Your task to perform on an android device: Go to Android settings Image 0: 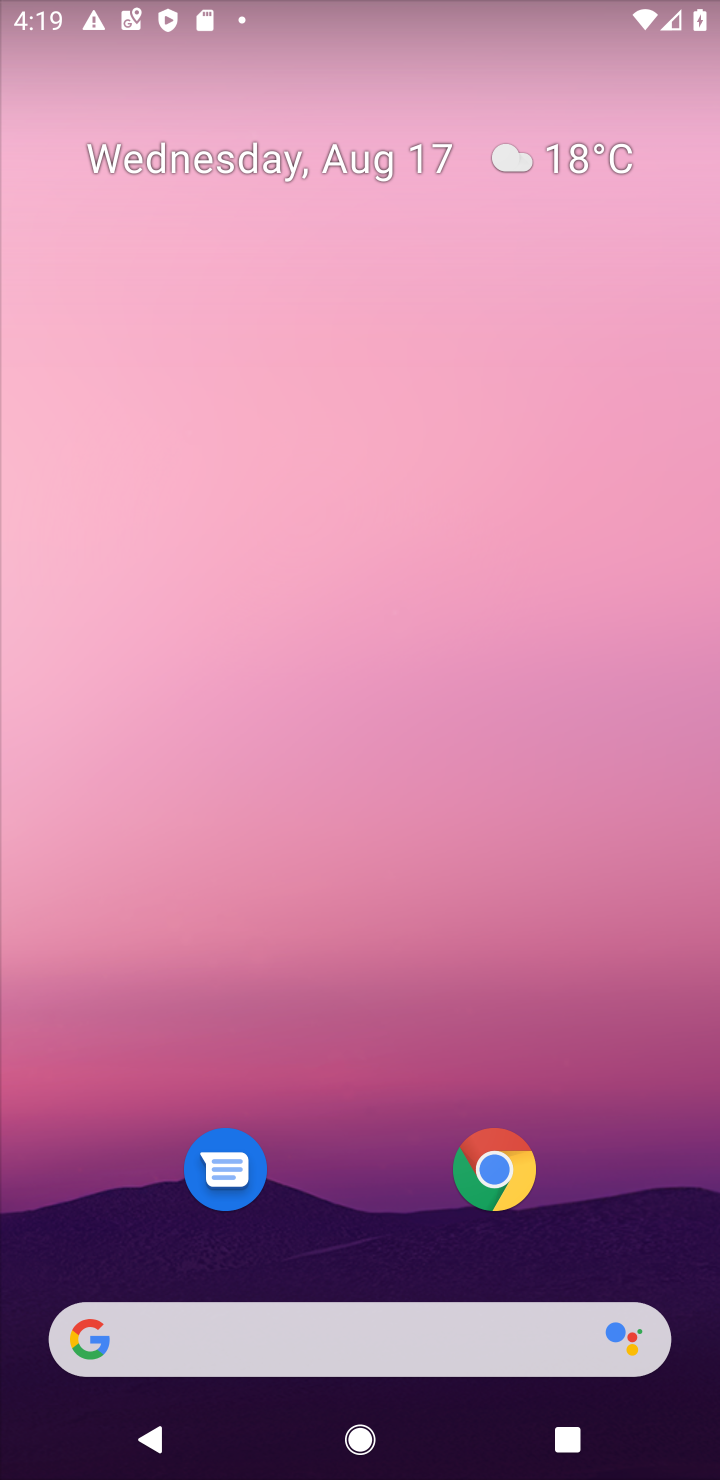
Step 0: press home button
Your task to perform on an android device: Go to Android settings Image 1: 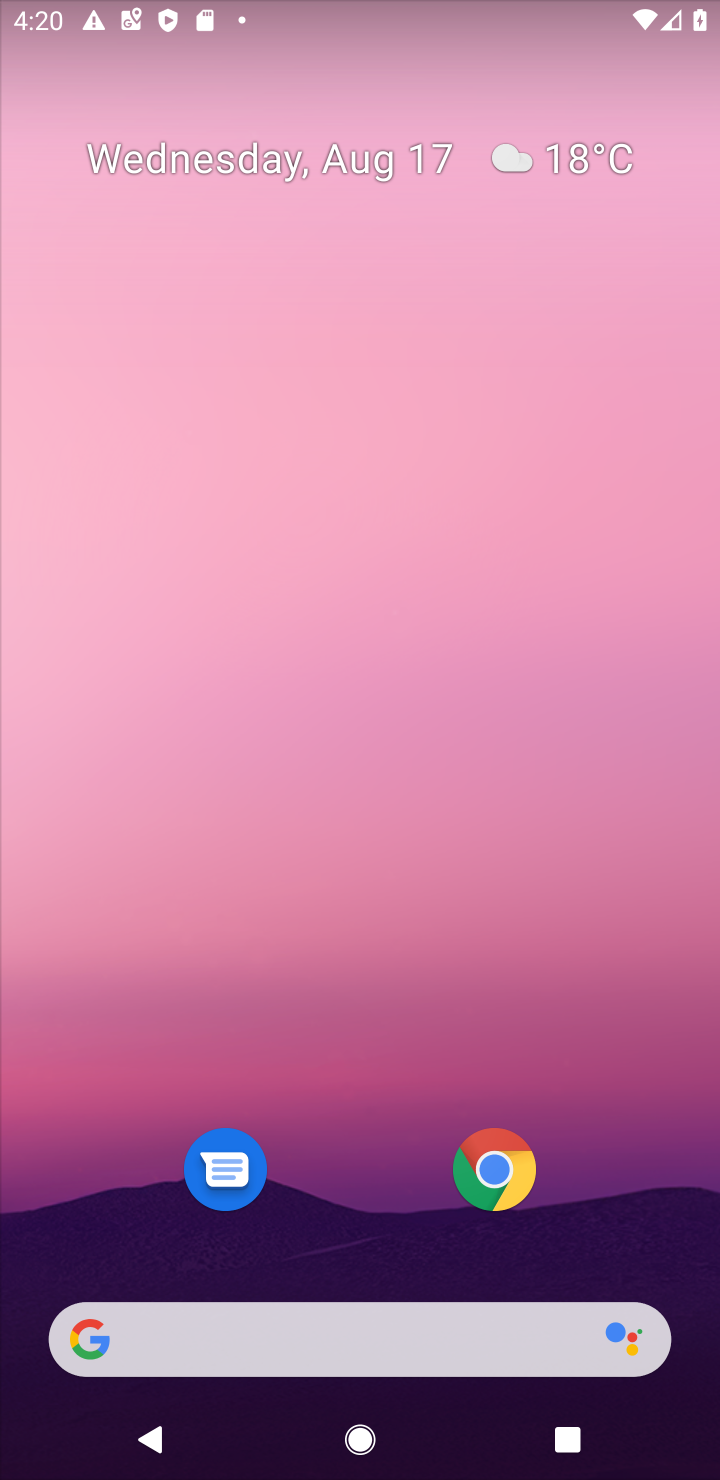
Step 1: drag from (359, 966) to (366, 13)
Your task to perform on an android device: Go to Android settings Image 2: 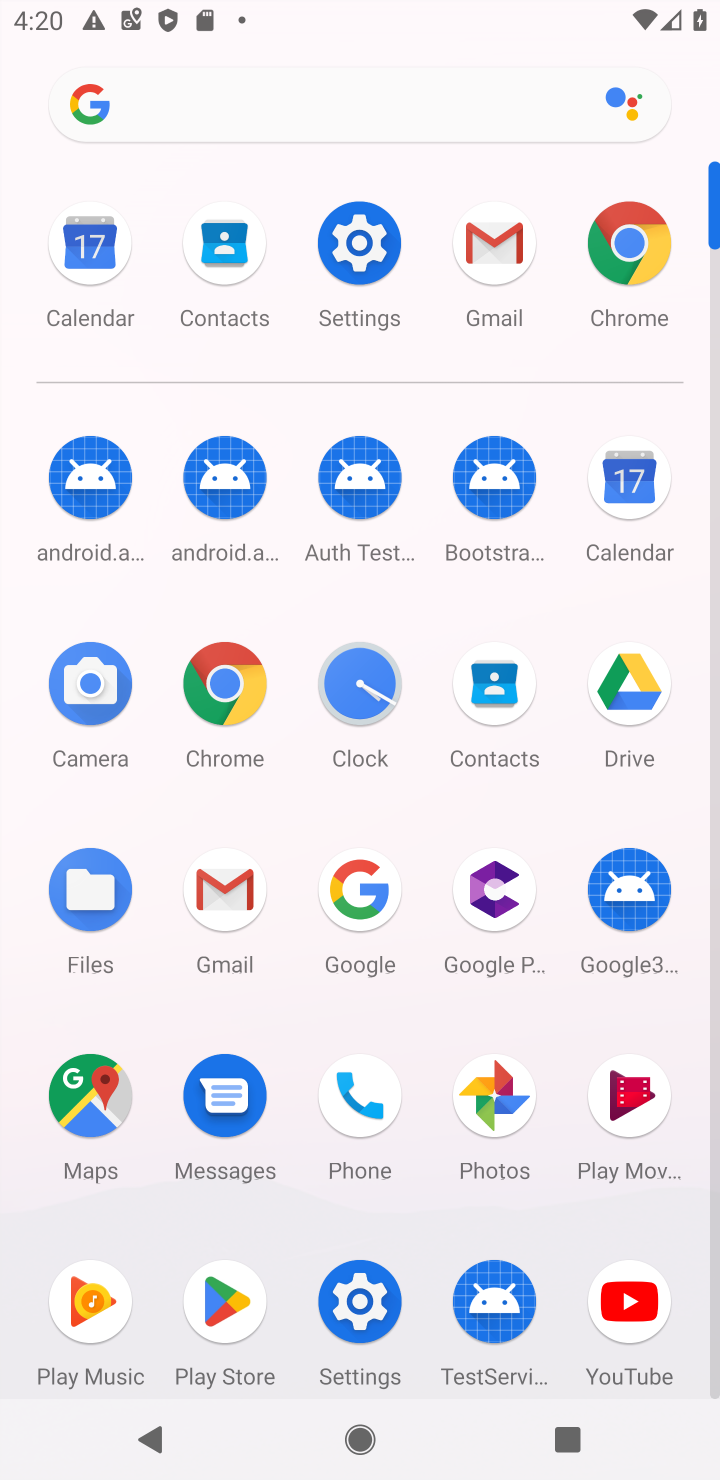
Step 2: click (368, 1290)
Your task to perform on an android device: Go to Android settings Image 3: 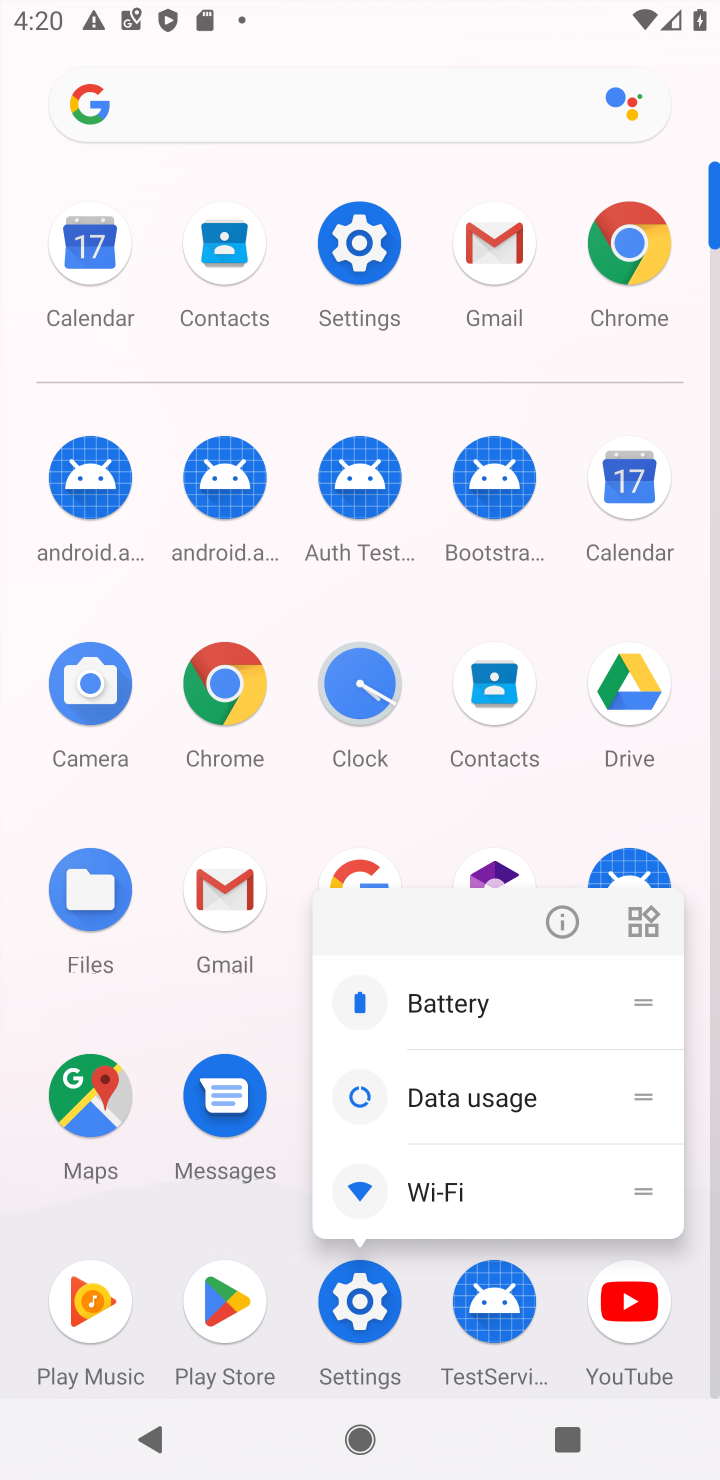
Step 3: click (361, 1311)
Your task to perform on an android device: Go to Android settings Image 4: 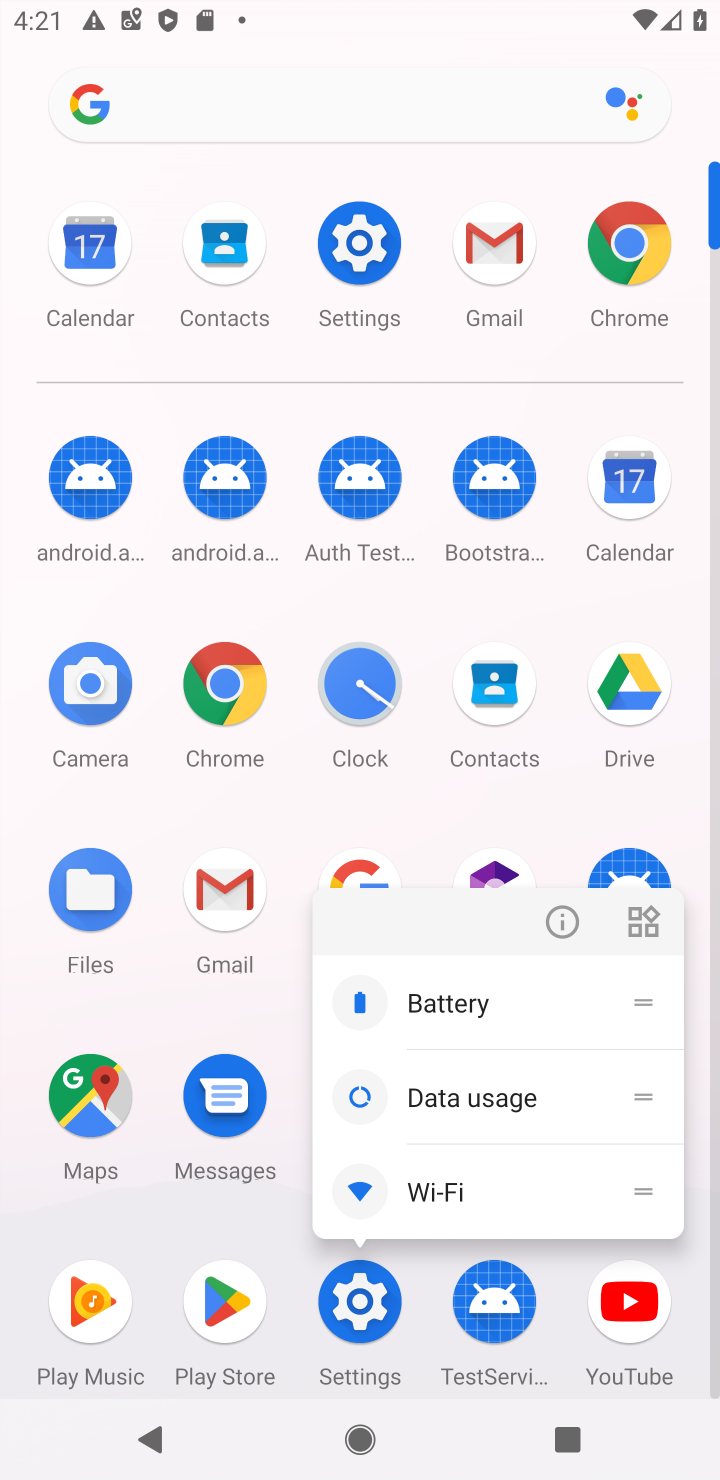
Step 4: click (355, 1323)
Your task to perform on an android device: Go to Android settings Image 5: 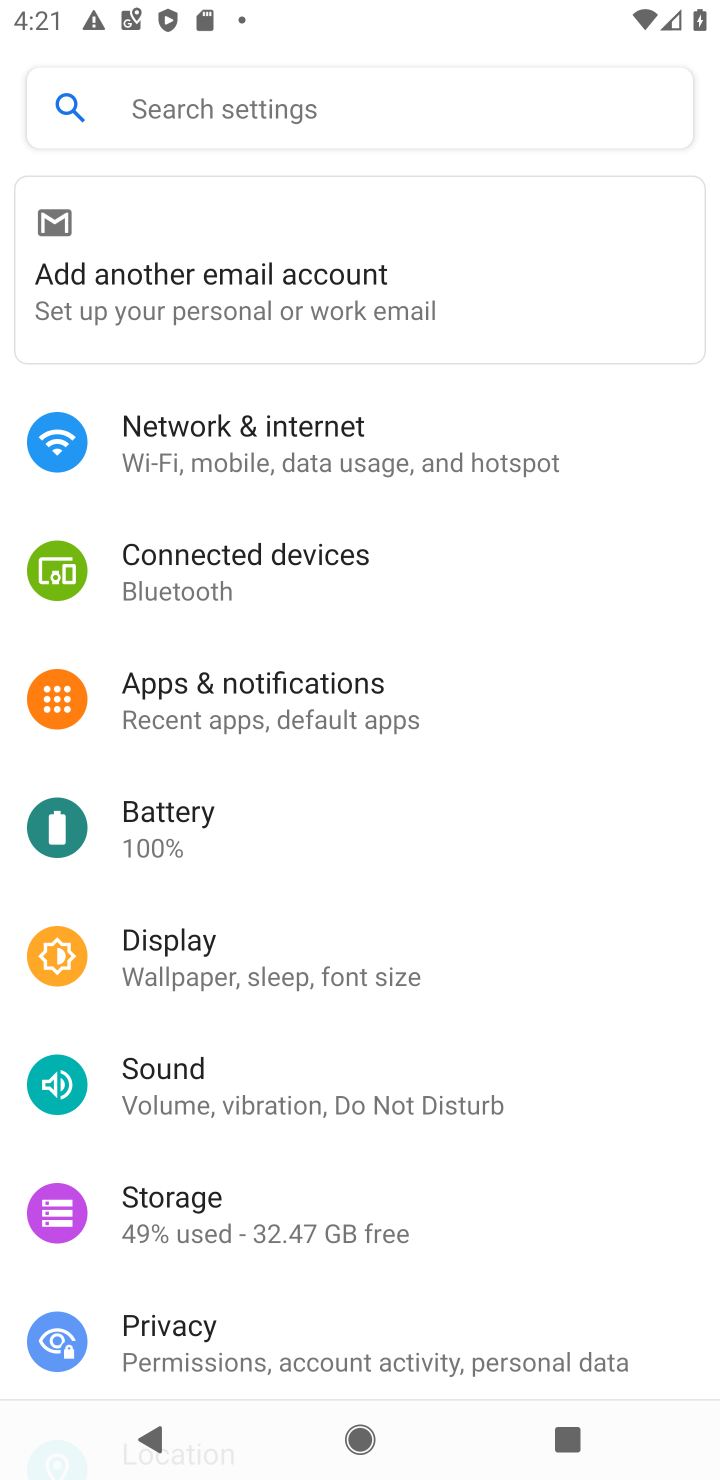
Step 5: drag from (343, 1275) to (401, 456)
Your task to perform on an android device: Go to Android settings Image 6: 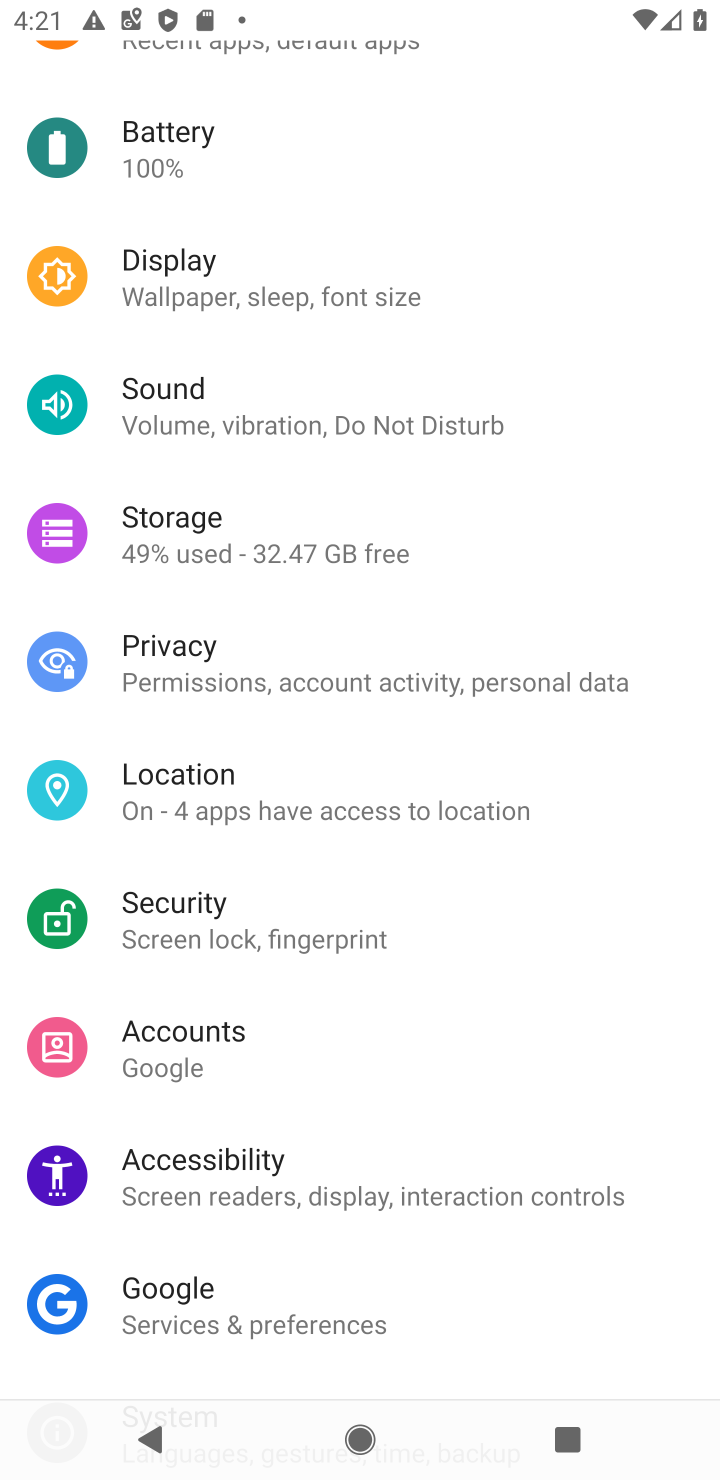
Step 6: drag from (330, 1171) to (349, 449)
Your task to perform on an android device: Go to Android settings Image 7: 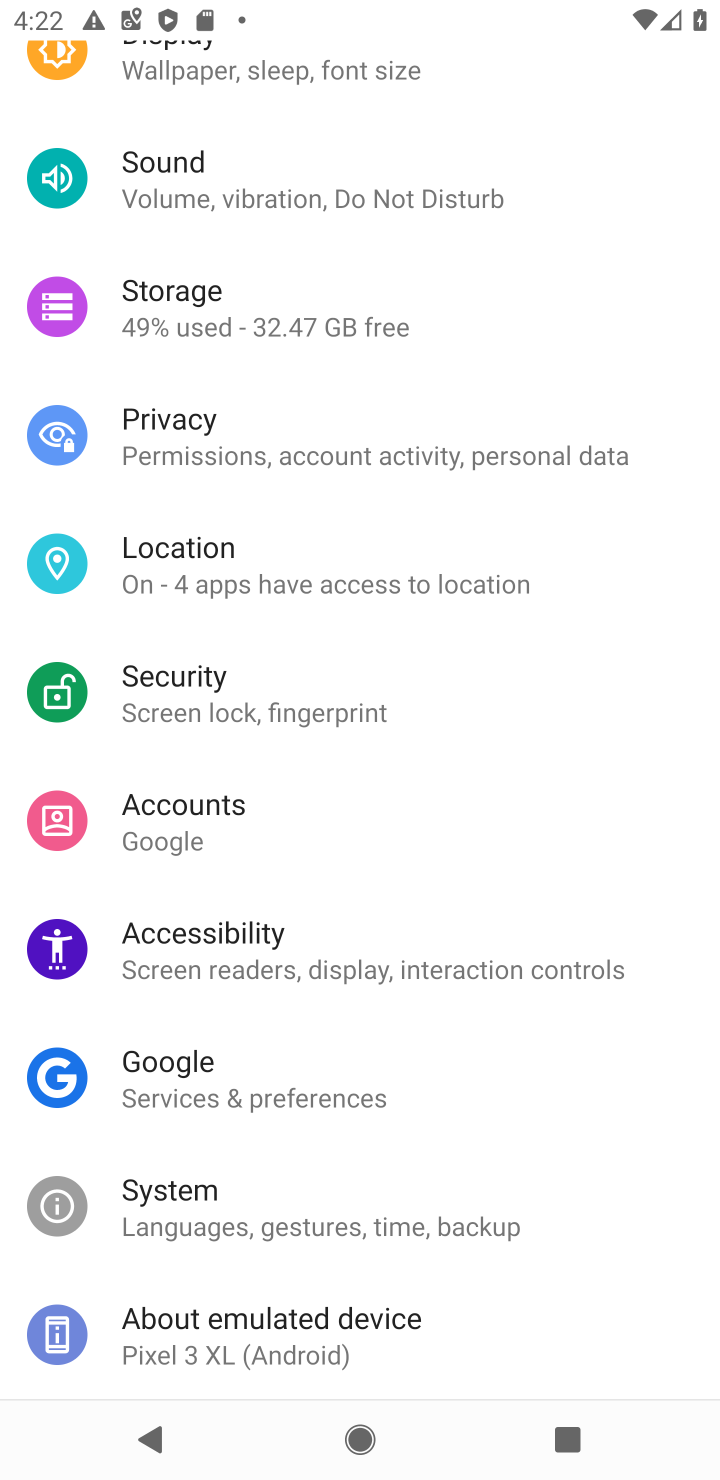
Step 7: drag from (305, 1183) to (293, 359)
Your task to perform on an android device: Go to Android settings Image 8: 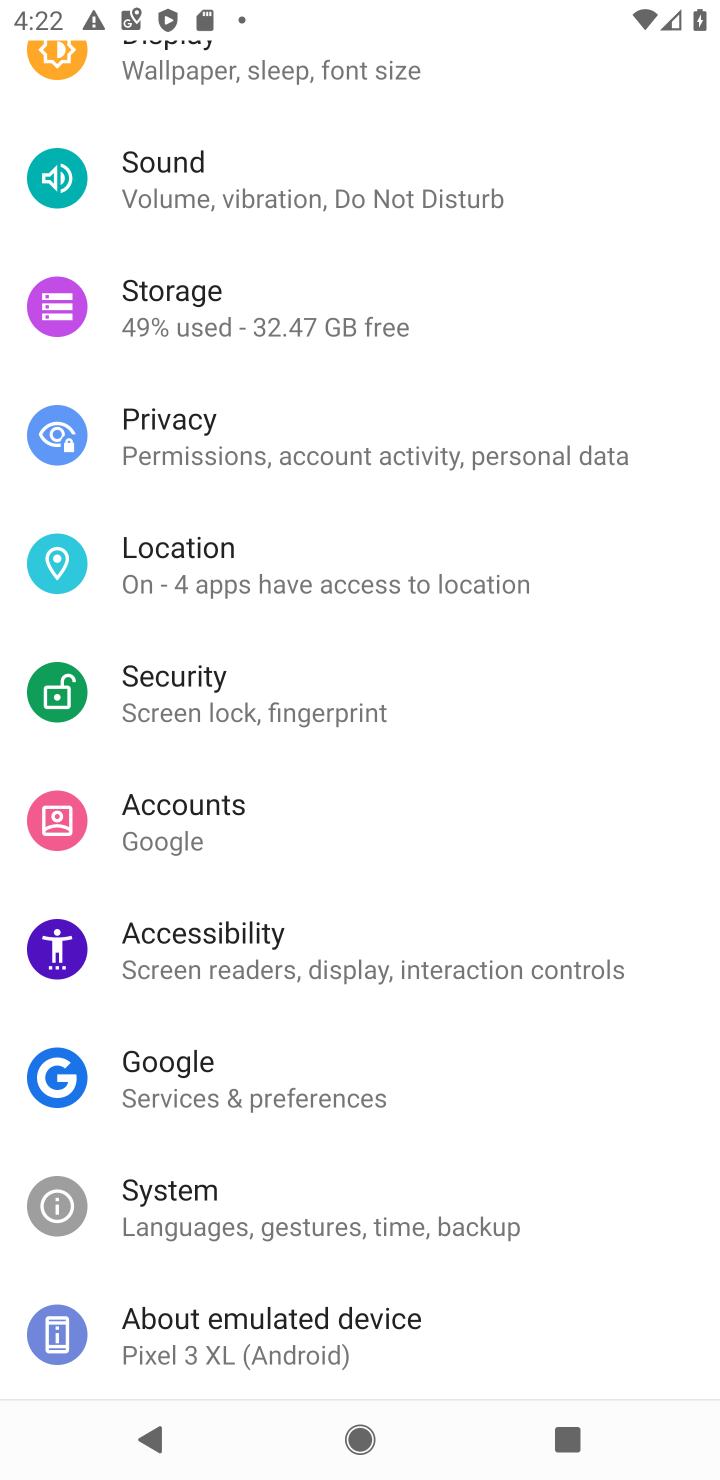
Step 8: drag from (394, 1267) to (403, 783)
Your task to perform on an android device: Go to Android settings Image 9: 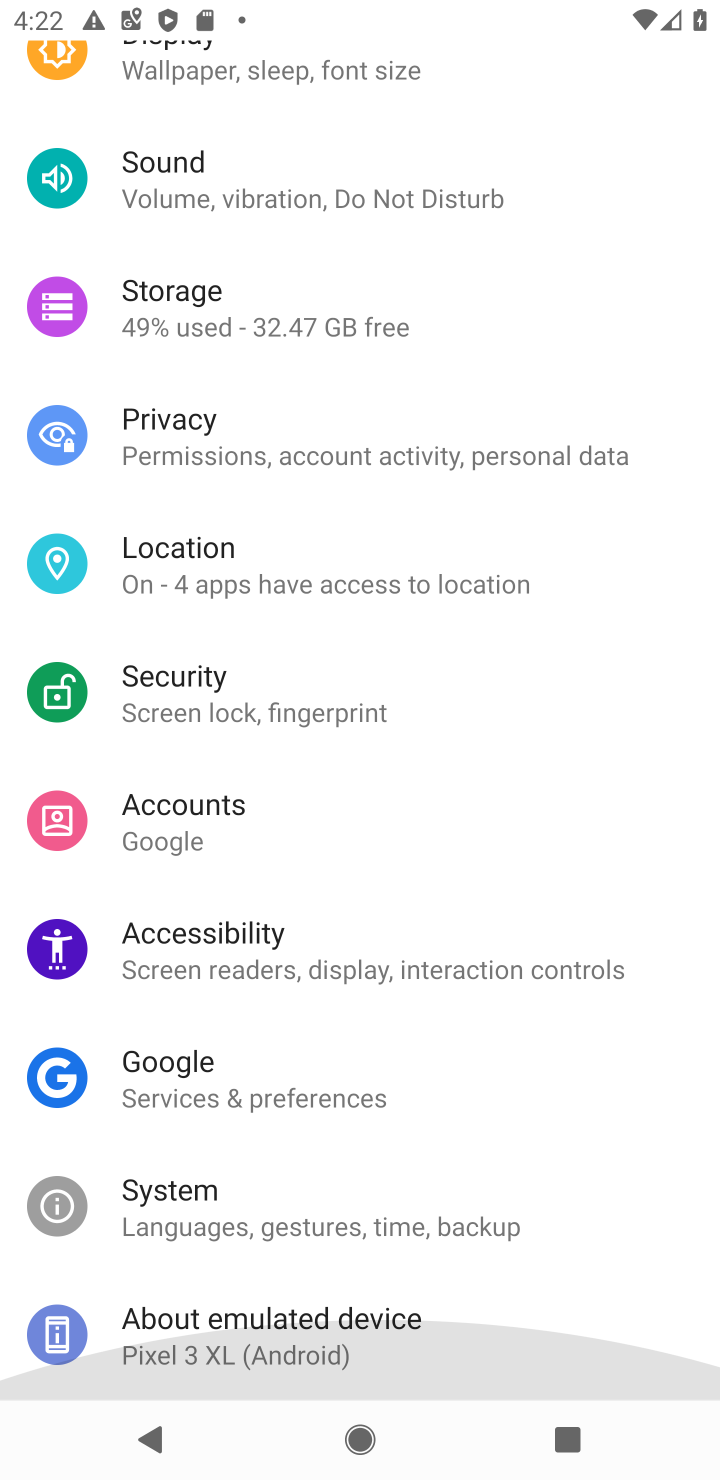
Step 9: click (203, 1349)
Your task to perform on an android device: Go to Android settings Image 10: 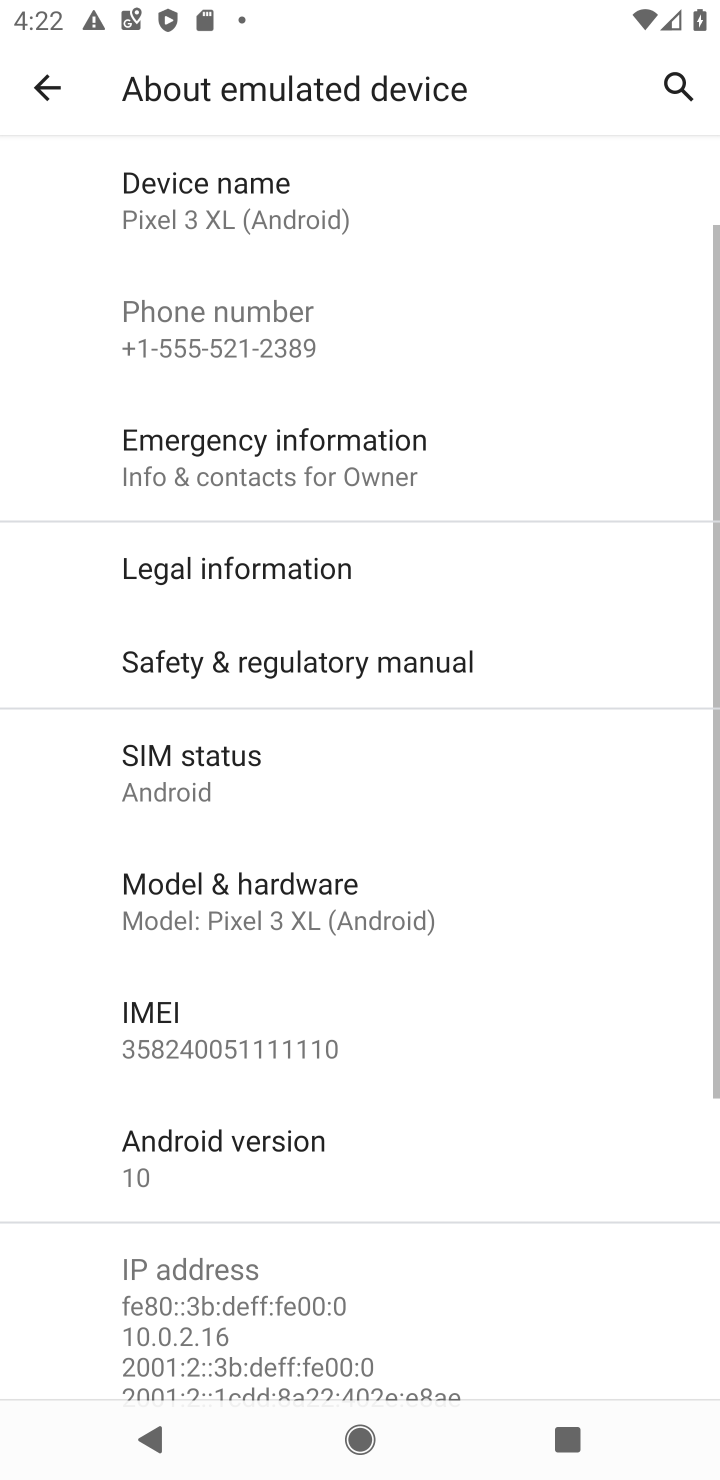
Step 10: click (228, 1158)
Your task to perform on an android device: Go to Android settings Image 11: 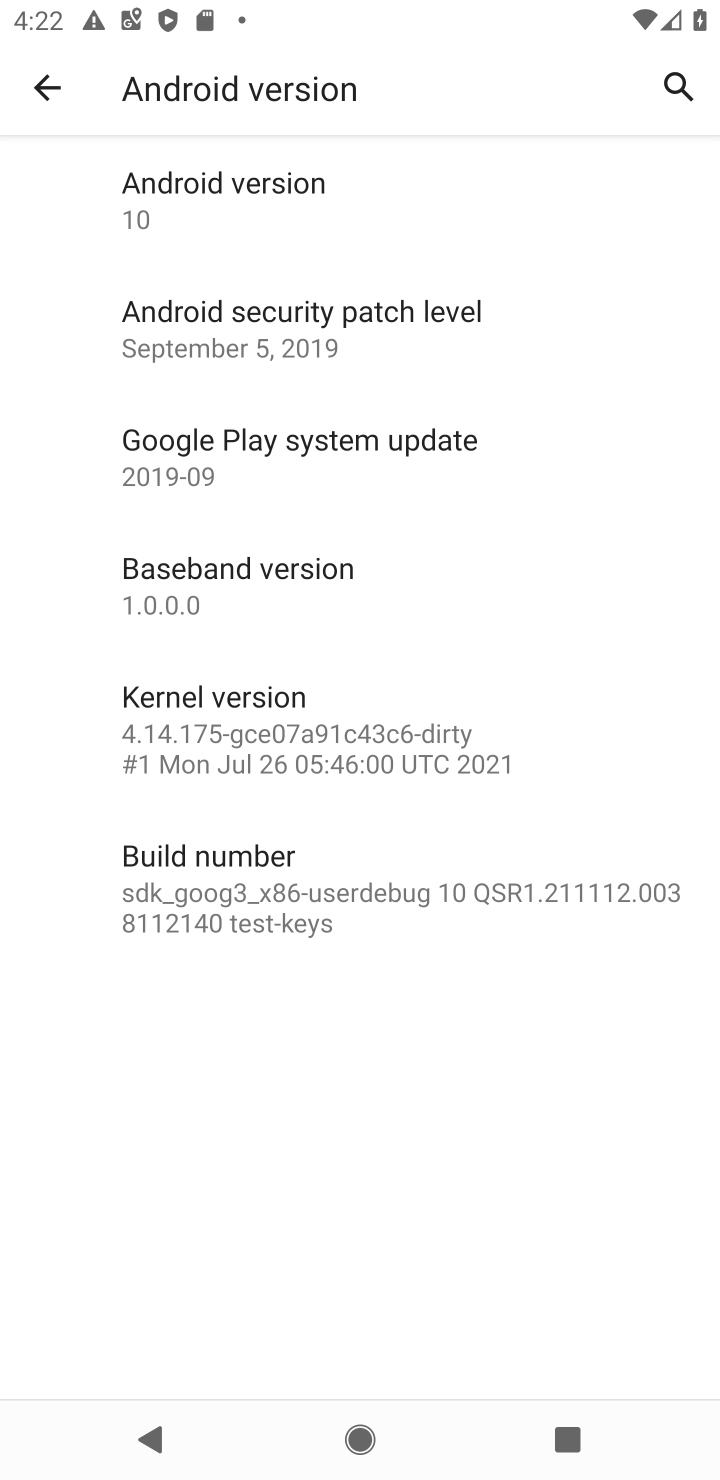
Step 11: task complete